Your task to perform on an android device: Open calendar and show me the third week of next month Image 0: 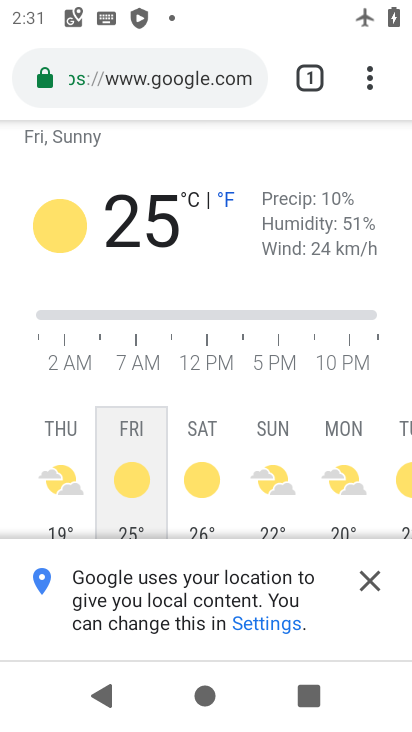
Step 0: press home button
Your task to perform on an android device: Open calendar and show me the third week of next month Image 1: 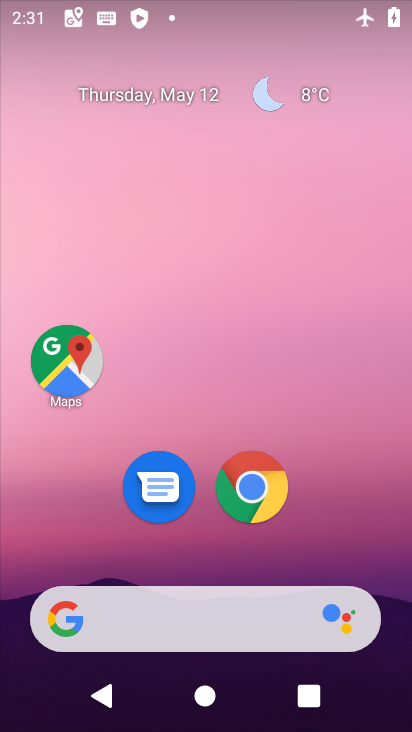
Step 1: drag from (341, 549) to (366, 157)
Your task to perform on an android device: Open calendar and show me the third week of next month Image 2: 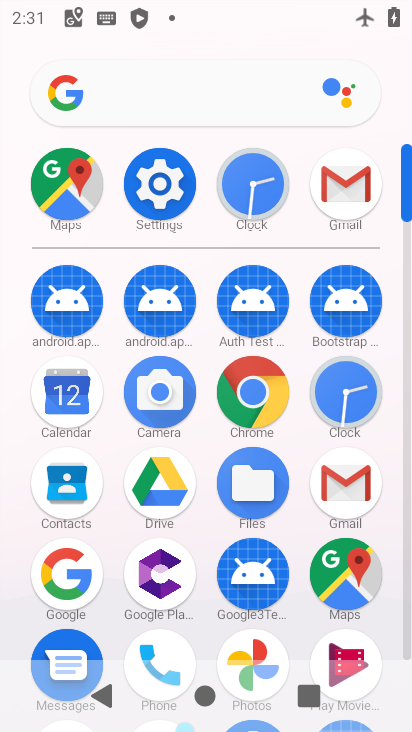
Step 2: click (82, 411)
Your task to perform on an android device: Open calendar and show me the third week of next month Image 3: 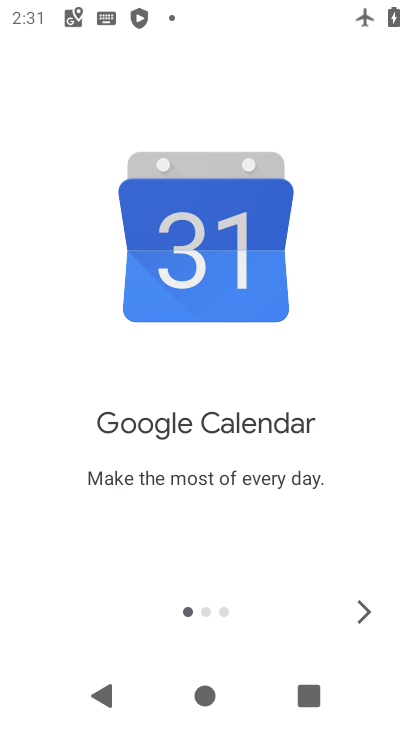
Step 3: click (371, 613)
Your task to perform on an android device: Open calendar and show me the third week of next month Image 4: 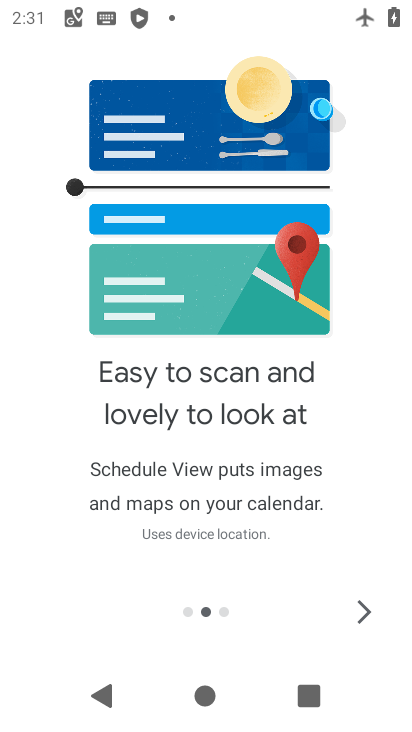
Step 4: click (370, 612)
Your task to perform on an android device: Open calendar and show me the third week of next month Image 5: 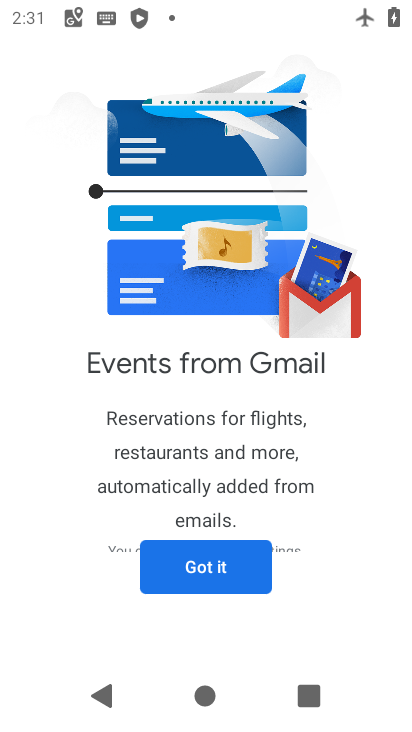
Step 5: click (223, 580)
Your task to perform on an android device: Open calendar and show me the third week of next month Image 6: 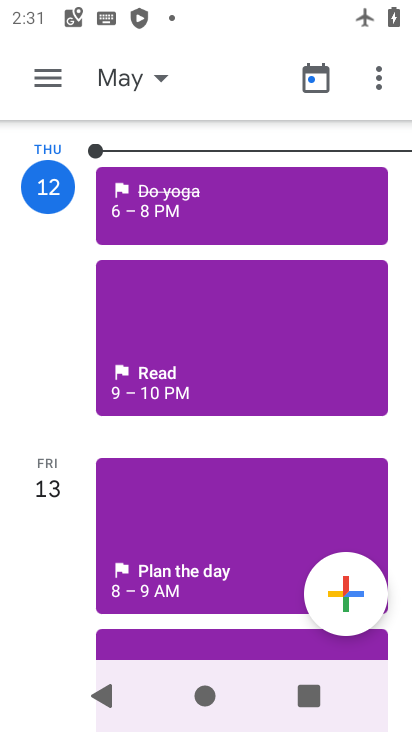
Step 6: click (157, 82)
Your task to perform on an android device: Open calendar and show me the third week of next month Image 7: 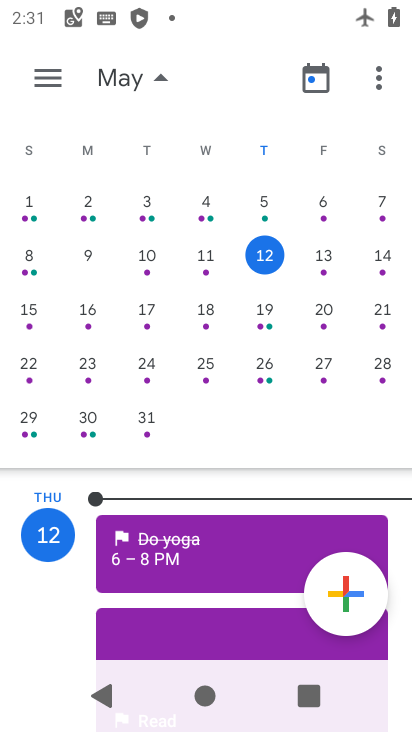
Step 7: drag from (362, 311) to (69, 315)
Your task to perform on an android device: Open calendar and show me the third week of next month Image 8: 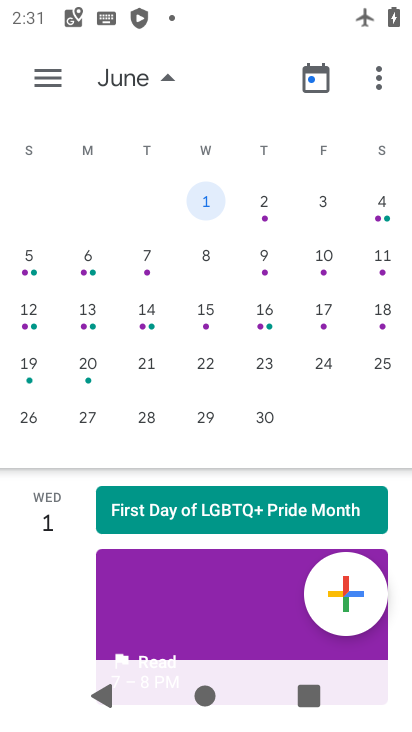
Step 8: click (32, 368)
Your task to perform on an android device: Open calendar and show me the third week of next month Image 9: 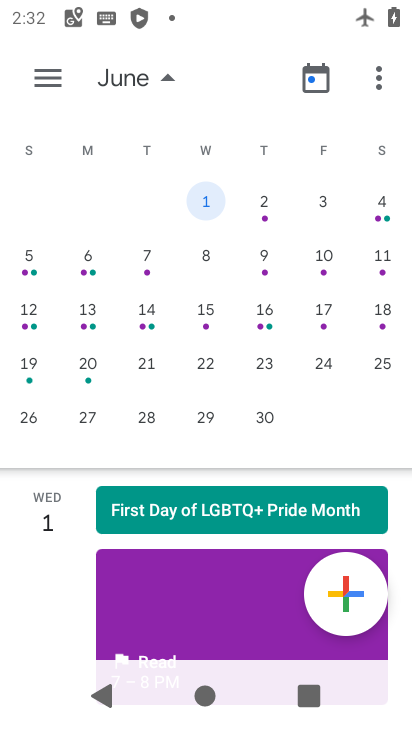
Step 9: click (35, 368)
Your task to perform on an android device: Open calendar and show me the third week of next month Image 10: 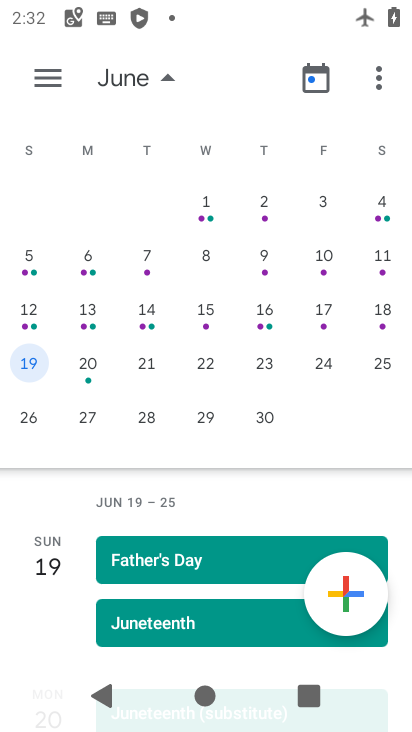
Step 10: task complete